Your task to perform on an android device: Open the Play Movies app and select the watchlist tab. Image 0: 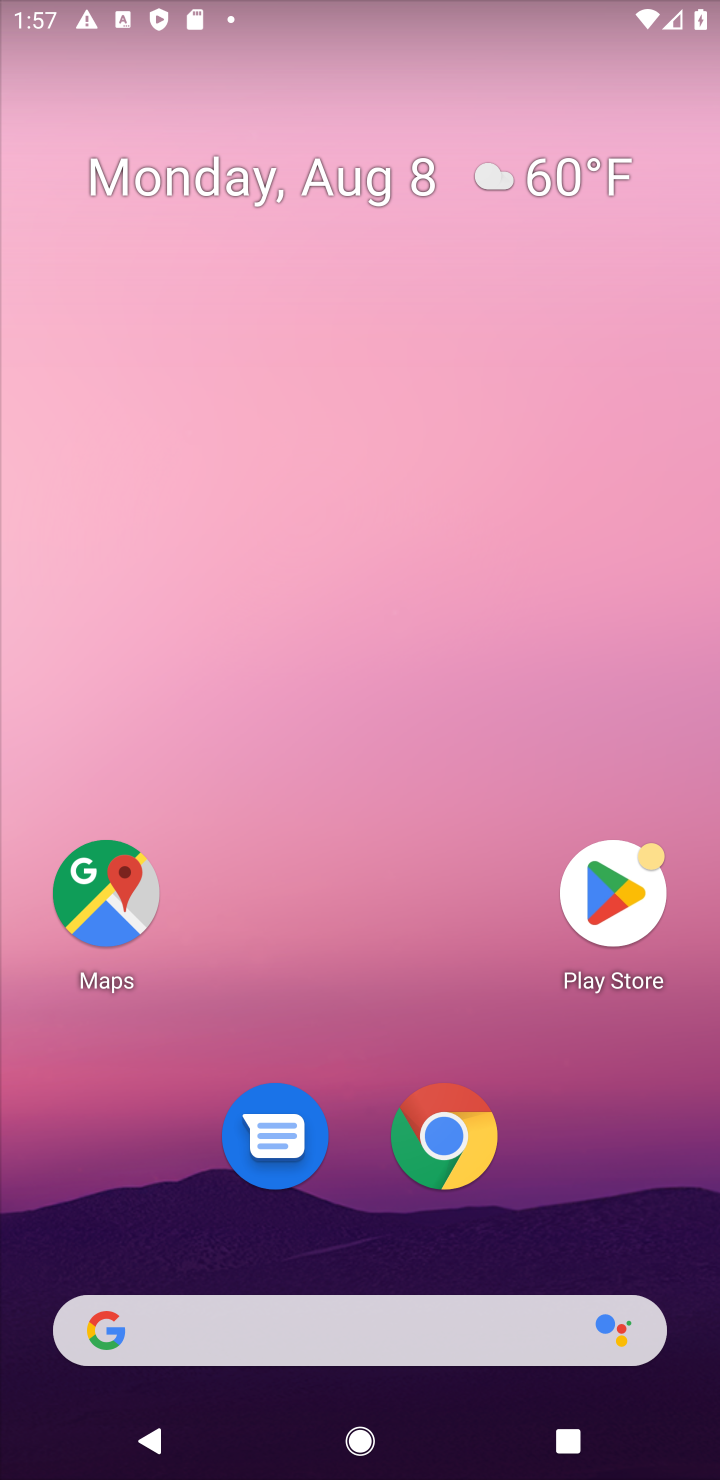
Step 0: drag from (90, 1412) to (407, 23)
Your task to perform on an android device: Open the Play Movies app and select the watchlist tab. Image 1: 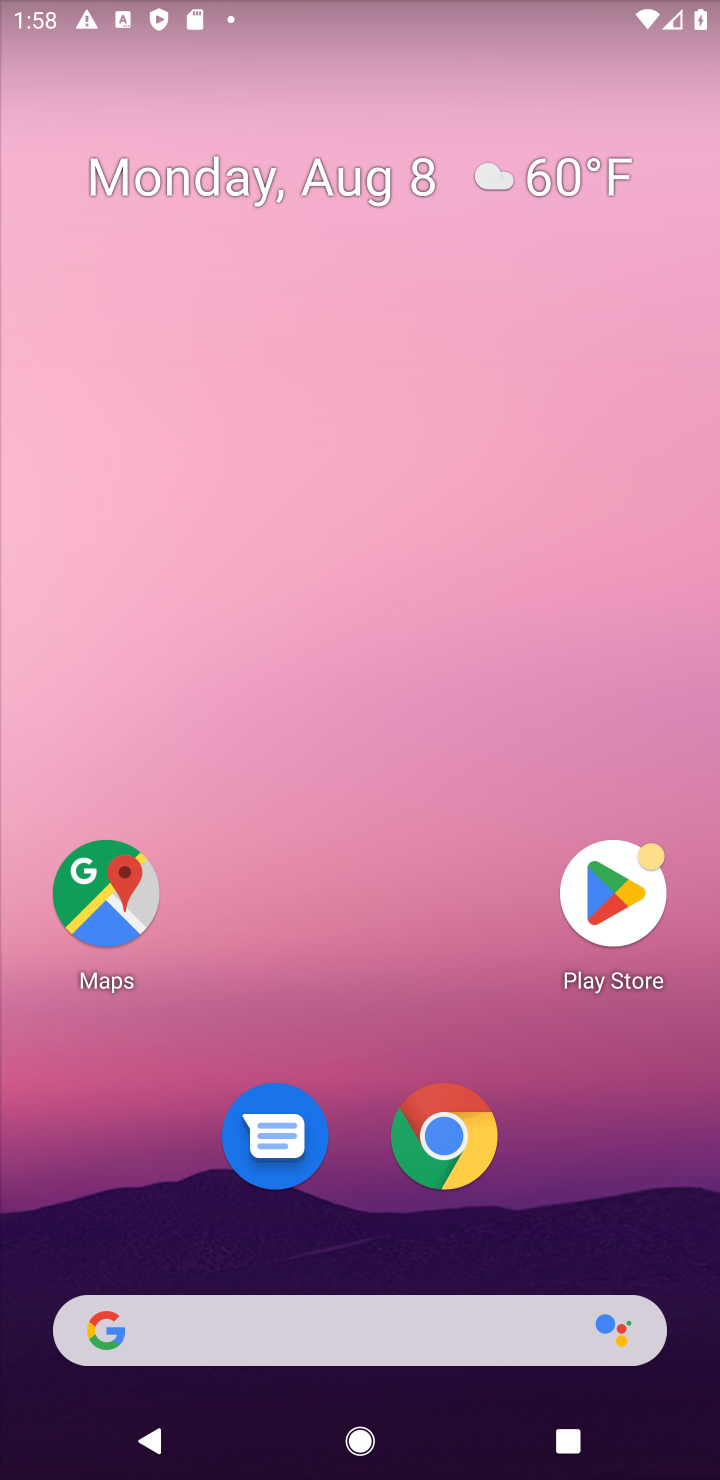
Step 1: task complete